Your task to perform on an android device: open device folders in google photos Image 0: 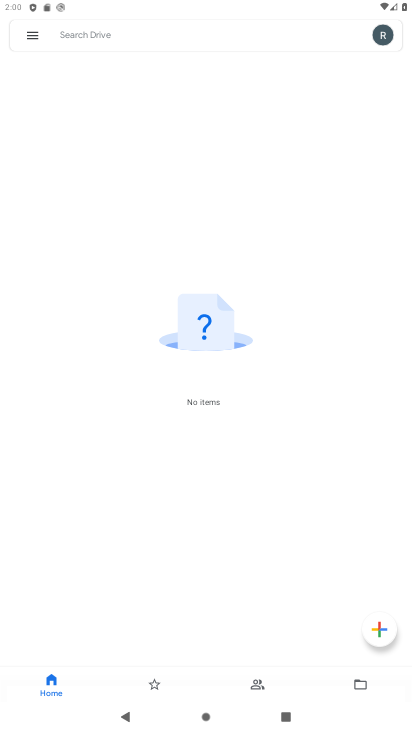
Step 0: press home button
Your task to perform on an android device: open device folders in google photos Image 1: 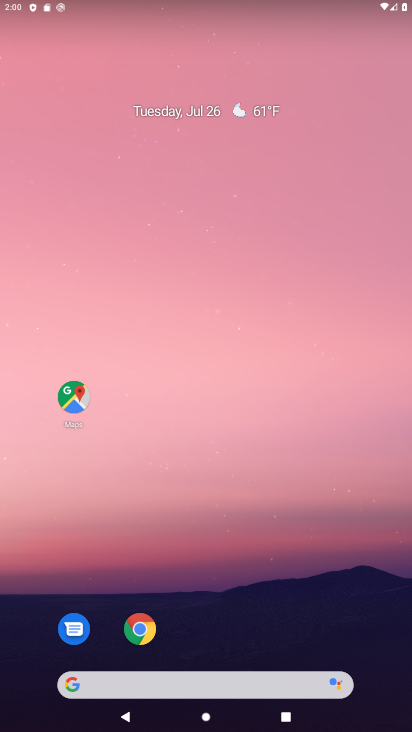
Step 1: drag from (219, 588) to (193, 7)
Your task to perform on an android device: open device folders in google photos Image 2: 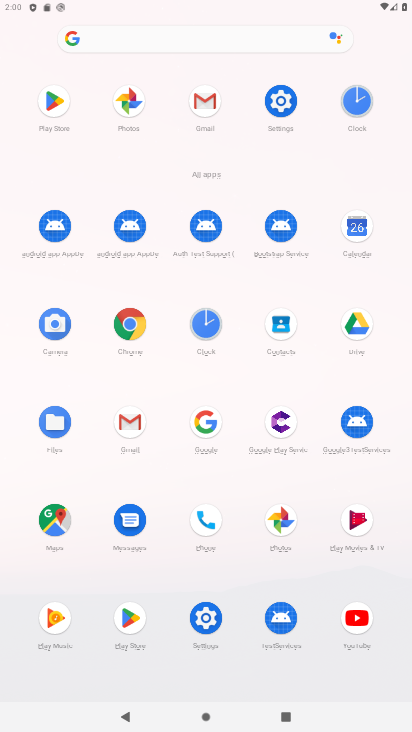
Step 2: click (127, 97)
Your task to perform on an android device: open device folders in google photos Image 3: 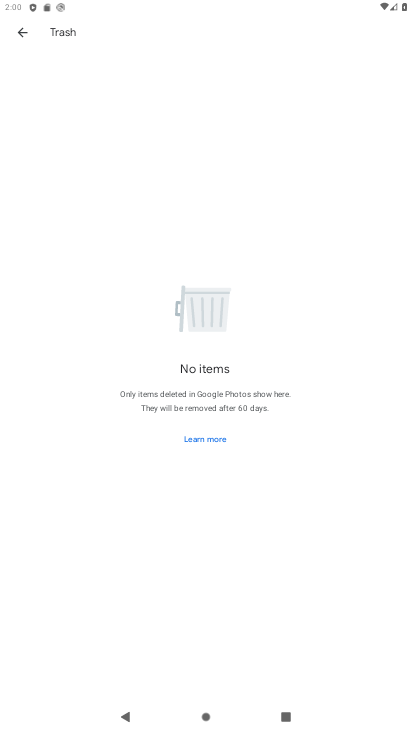
Step 3: click (20, 31)
Your task to perform on an android device: open device folders in google photos Image 4: 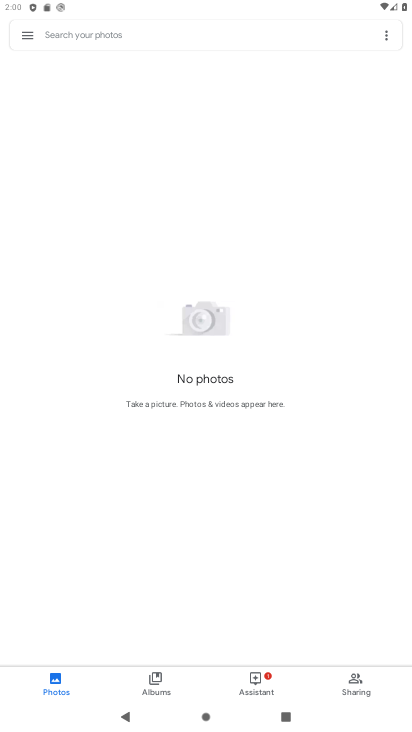
Step 4: click (25, 39)
Your task to perform on an android device: open device folders in google photos Image 5: 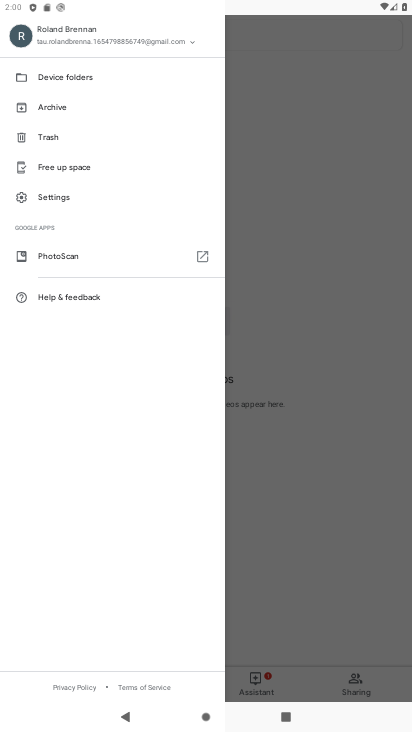
Step 5: click (75, 74)
Your task to perform on an android device: open device folders in google photos Image 6: 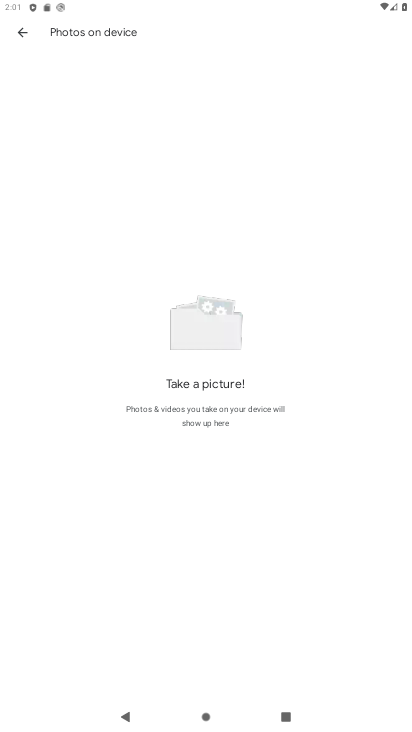
Step 6: task complete